Your task to perform on an android device: Find coffee shops on Maps Image 0: 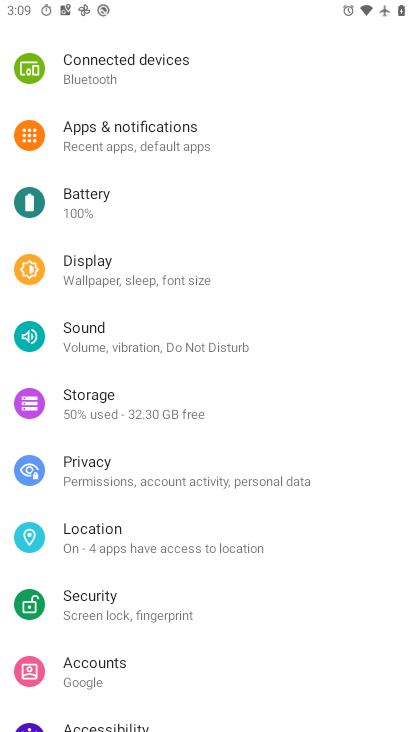
Step 0: press home button
Your task to perform on an android device: Find coffee shops on Maps Image 1: 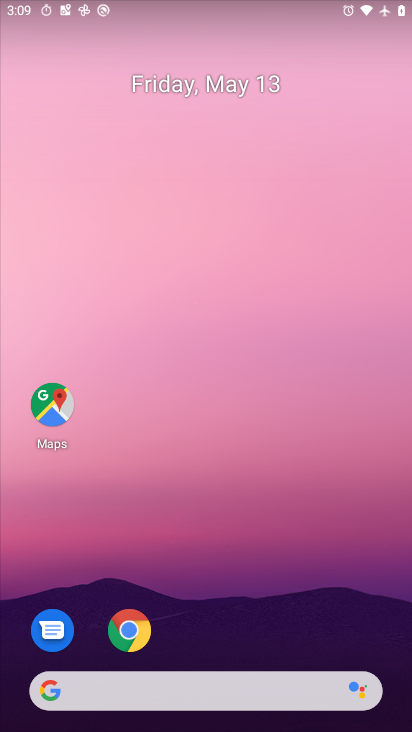
Step 1: drag from (201, 627) to (236, 126)
Your task to perform on an android device: Find coffee shops on Maps Image 2: 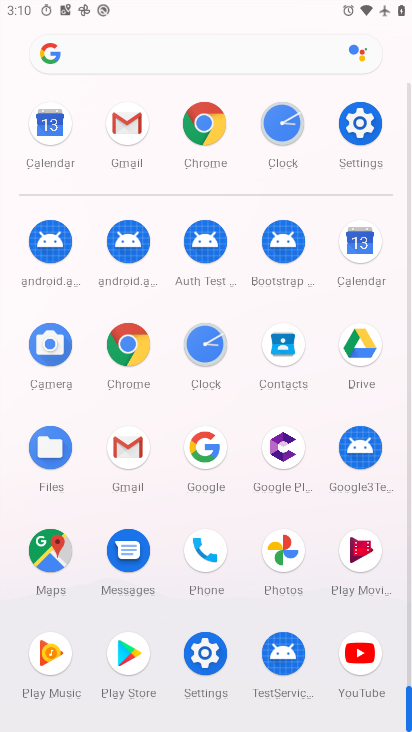
Step 2: click (43, 559)
Your task to perform on an android device: Find coffee shops on Maps Image 3: 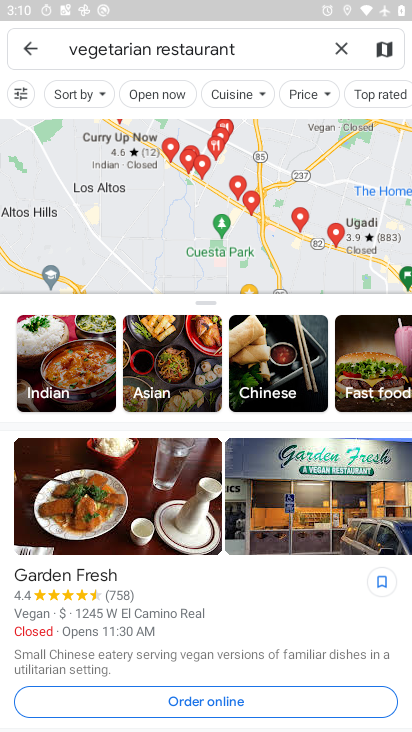
Step 3: click (336, 56)
Your task to perform on an android device: Find coffee shops on Maps Image 4: 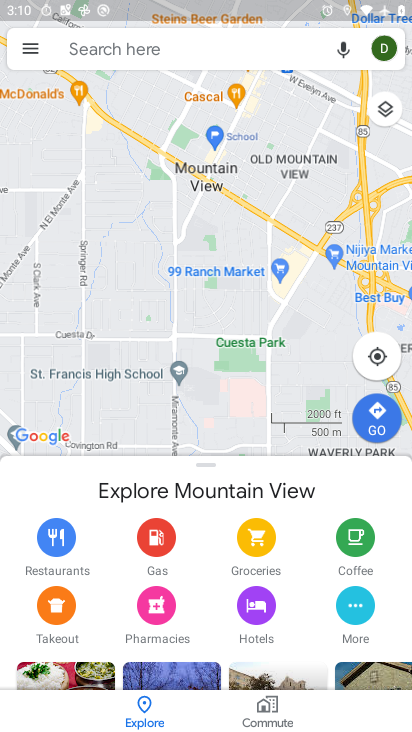
Step 4: click (157, 49)
Your task to perform on an android device: Find coffee shops on Maps Image 5: 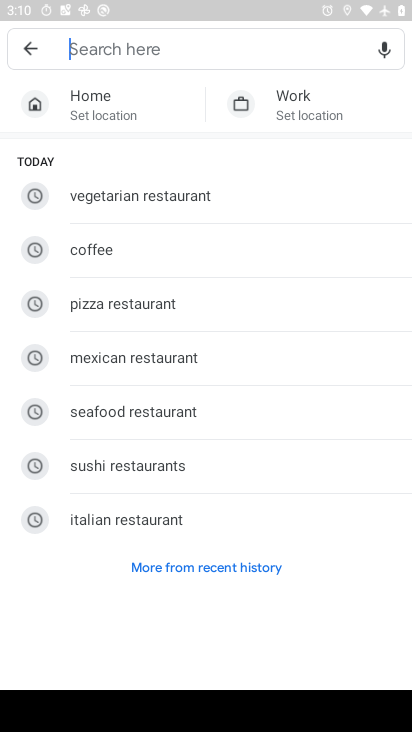
Step 5: type "coffee shops"
Your task to perform on an android device: Find coffee shops on Maps Image 6: 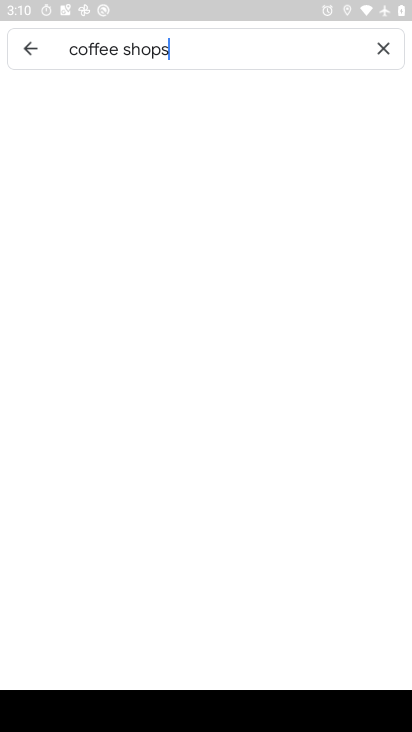
Step 6: type ""
Your task to perform on an android device: Find coffee shops on Maps Image 7: 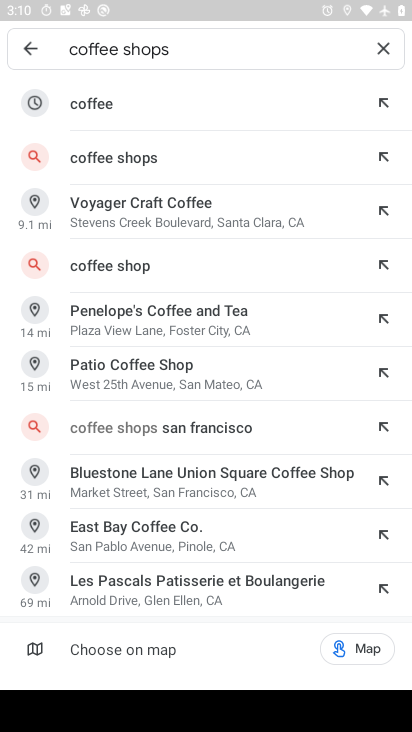
Step 7: click (216, 168)
Your task to perform on an android device: Find coffee shops on Maps Image 8: 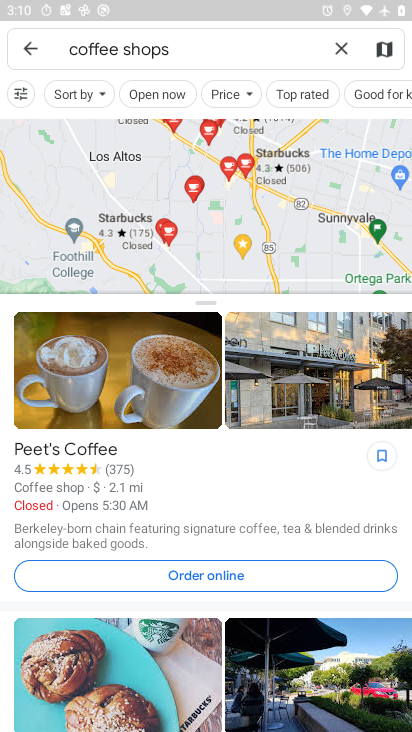
Step 8: task complete